Your task to perform on an android device: toggle notifications settings in the gmail app Image 0: 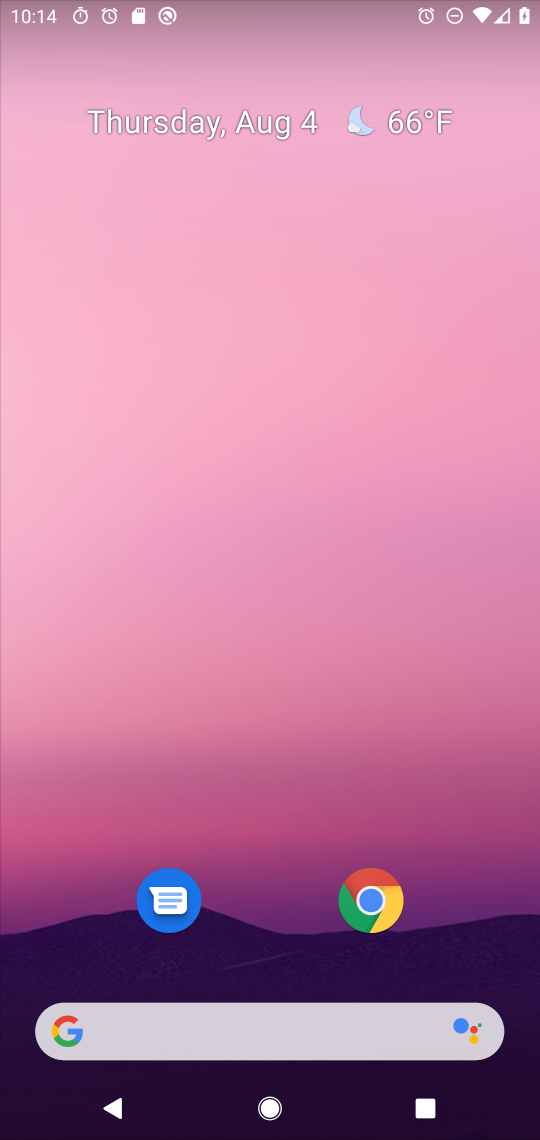
Step 0: drag from (229, 1038) to (289, 94)
Your task to perform on an android device: toggle notifications settings in the gmail app Image 1: 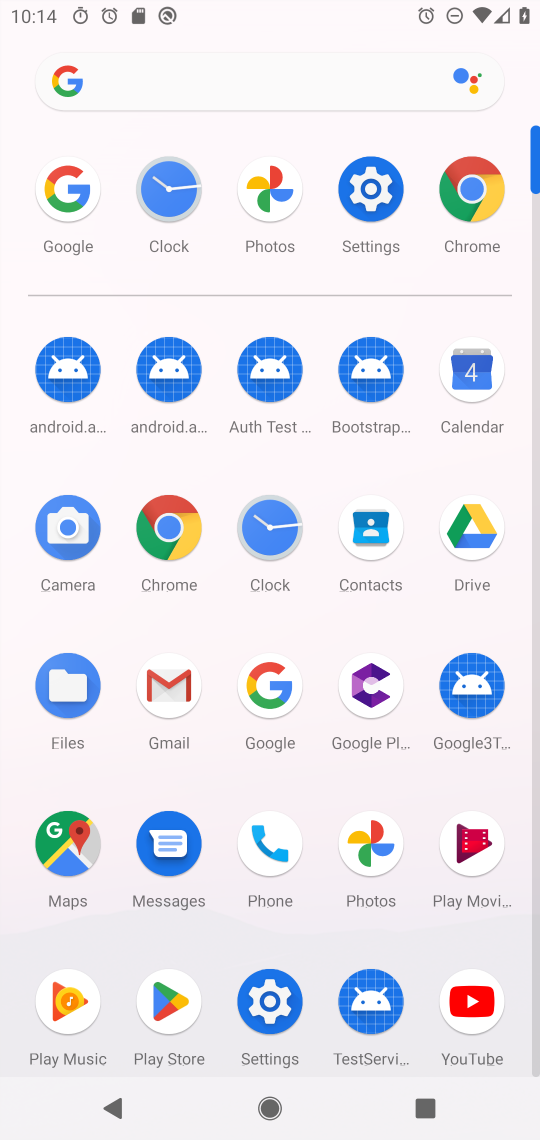
Step 1: click (168, 685)
Your task to perform on an android device: toggle notifications settings in the gmail app Image 2: 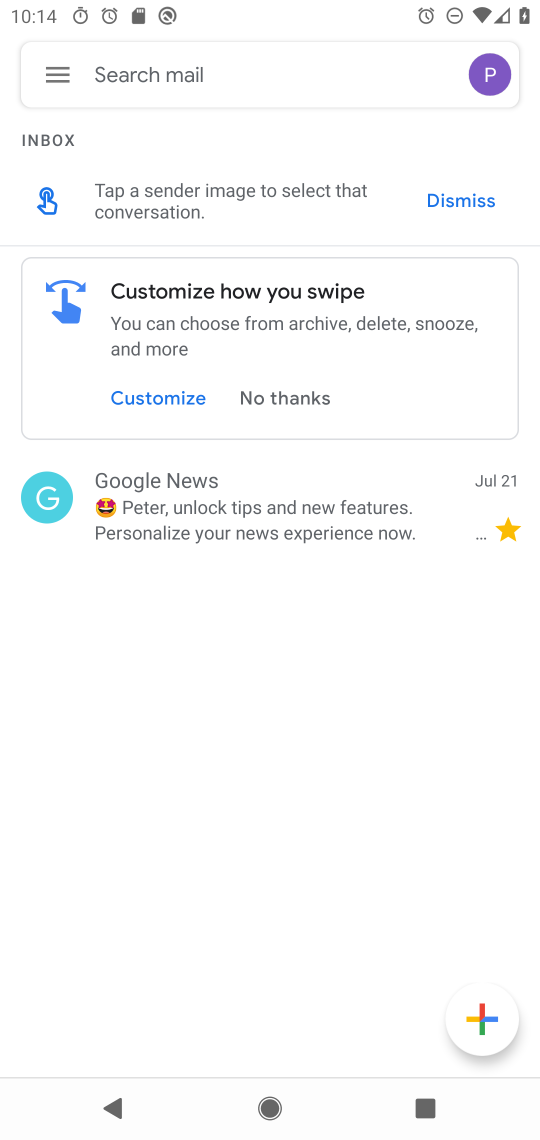
Step 2: click (58, 73)
Your task to perform on an android device: toggle notifications settings in the gmail app Image 3: 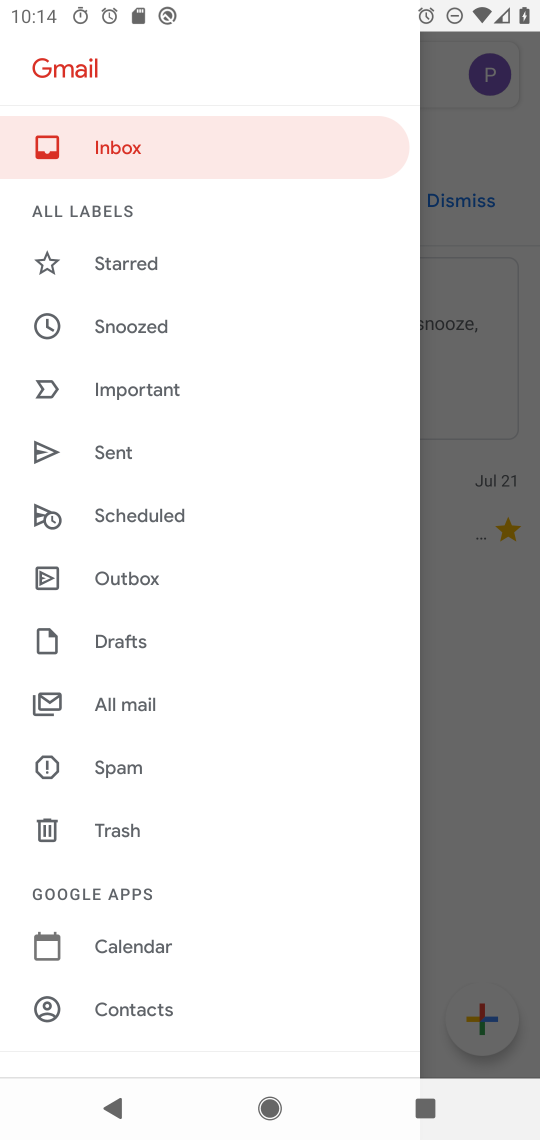
Step 3: drag from (148, 975) to (161, 701)
Your task to perform on an android device: toggle notifications settings in the gmail app Image 4: 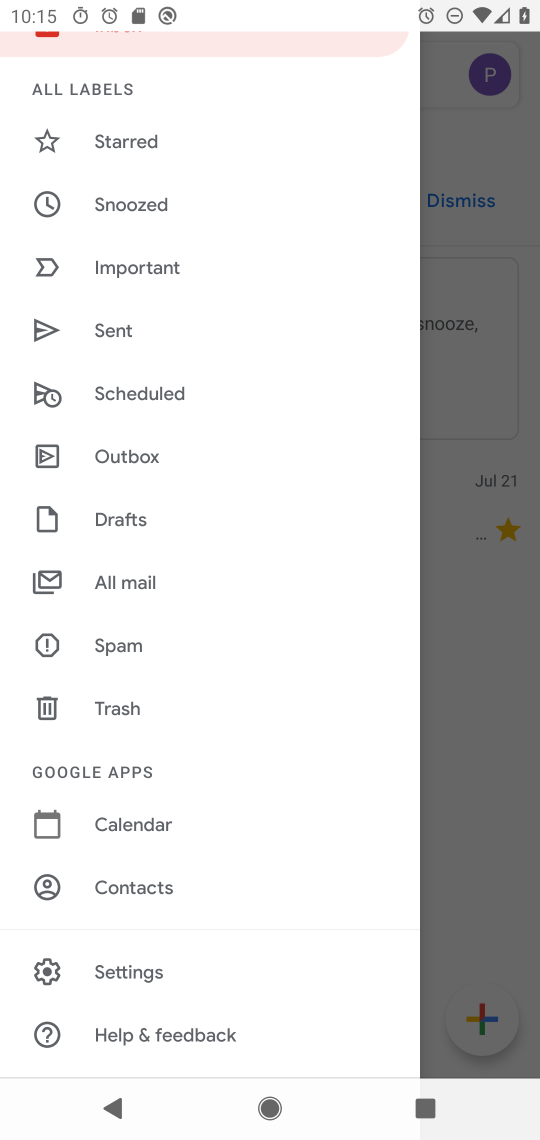
Step 4: click (133, 970)
Your task to perform on an android device: toggle notifications settings in the gmail app Image 5: 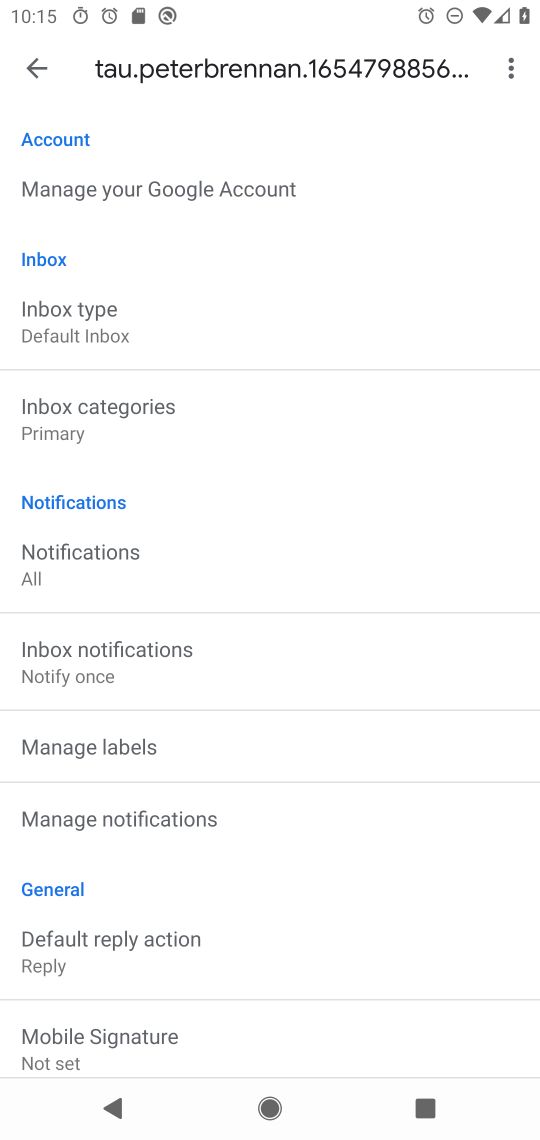
Step 5: click (115, 816)
Your task to perform on an android device: toggle notifications settings in the gmail app Image 6: 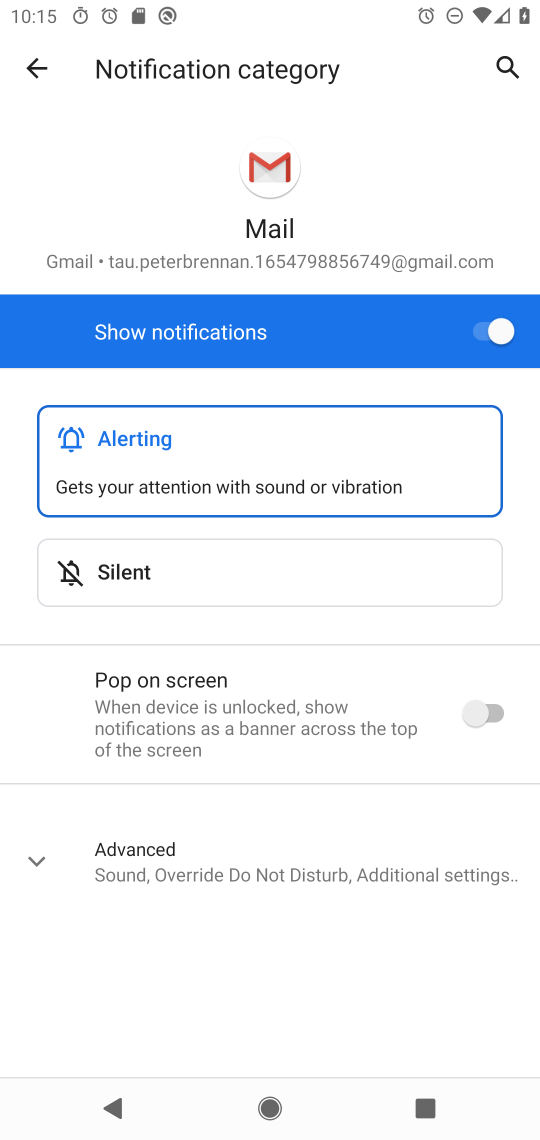
Step 6: click (492, 327)
Your task to perform on an android device: toggle notifications settings in the gmail app Image 7: 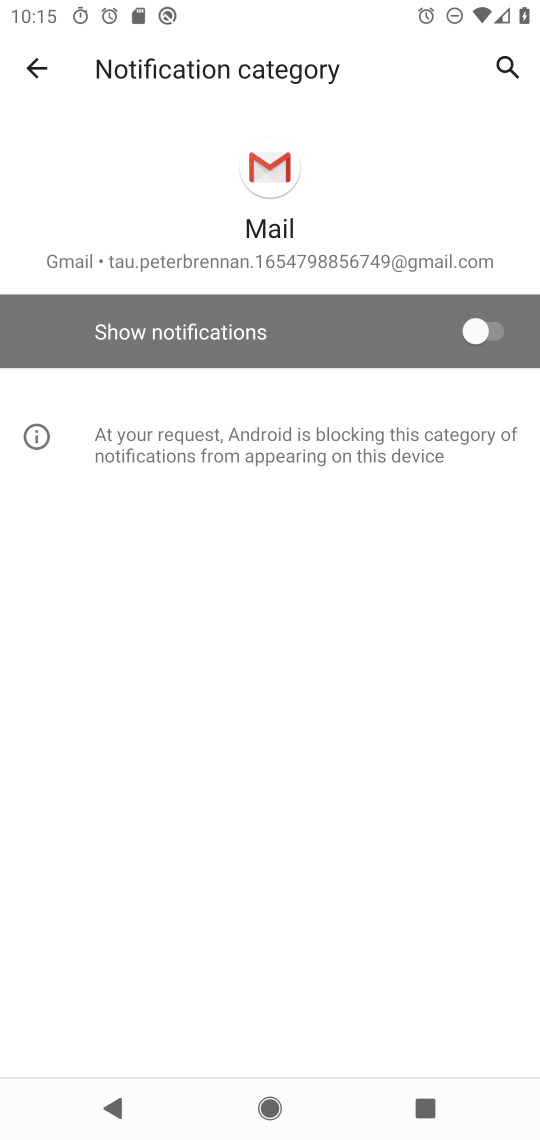
Step 7: task complete